Your task to perform on an android device: refresh tabs in the chrome app Image 0: 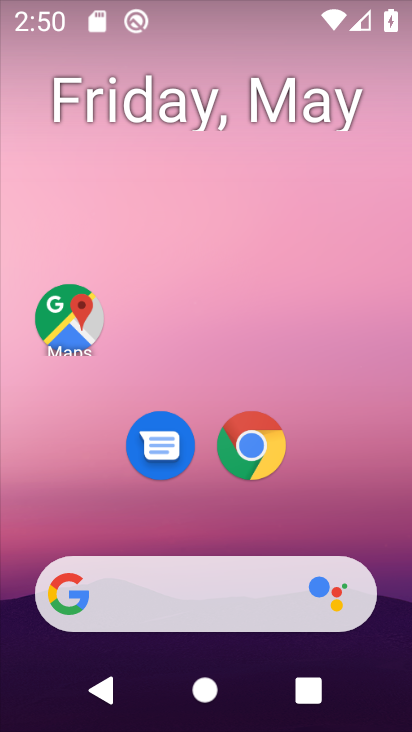
Step 0: click (252, 438)
Your task to perform on an android device: refresh tabs in the chrome app Image 1: 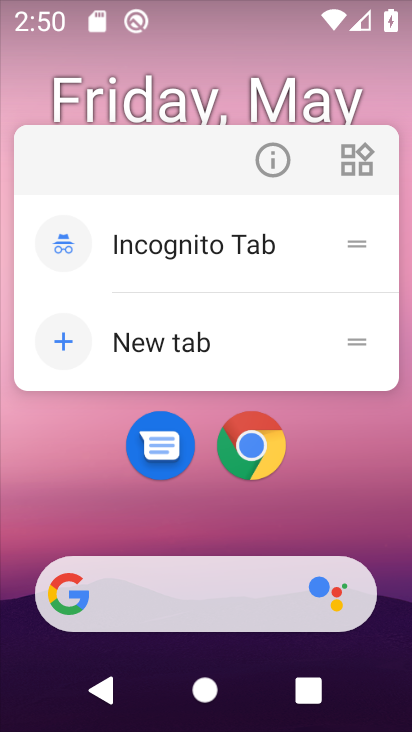
Step 1: click (271, 166)
Your task to perform on an android device: refresh tabs in the chrome app Image 2: 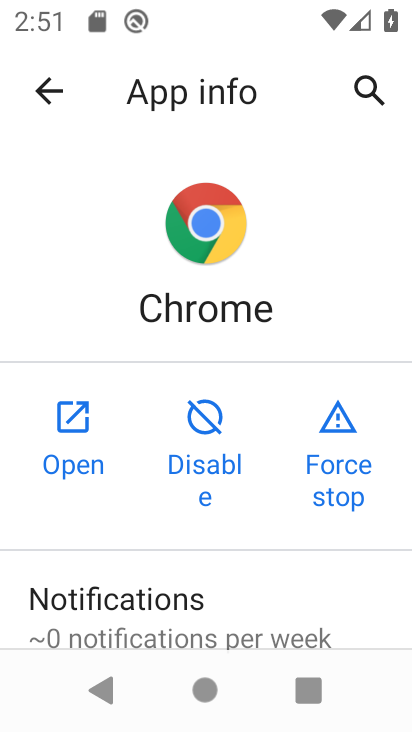
Step 2: click (53, 429)
Your task to perform on an android device: refresh tabs in the chrome app Image 3: 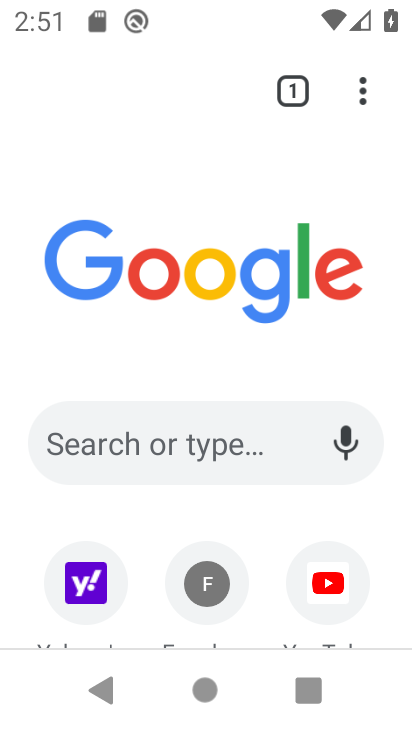
Step 3: click (360, 86)
Your task to perform on an android device: refresh tabs in the chrome app Image 4: 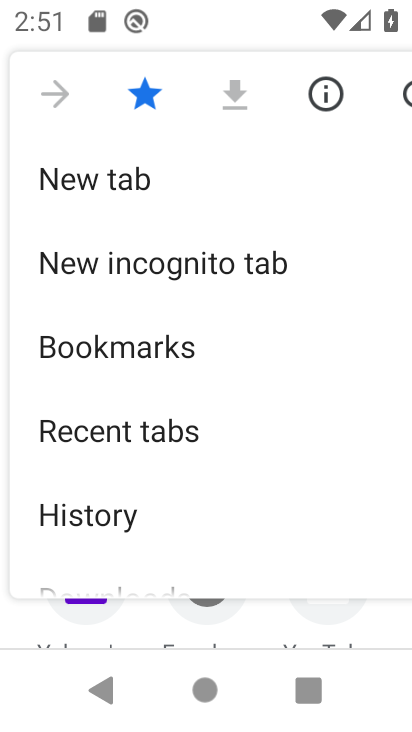
Step 4: click (401, 95)
Your task to perform on an android device: refresh tabs in the chrome app Image 5: 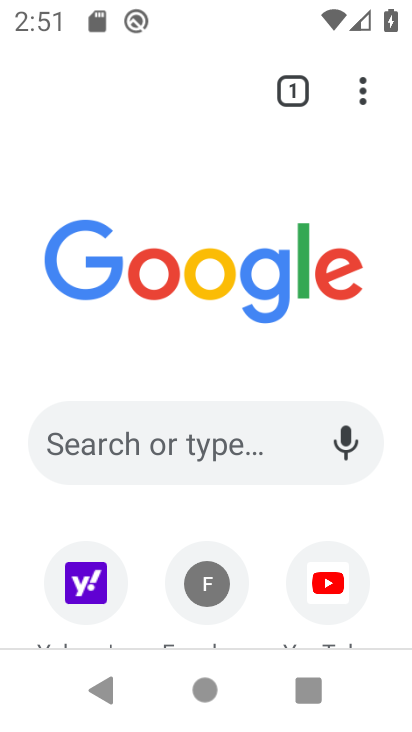
Step 5: task complete